Your task to perform on an android device: open app "Etsy: Buy & Sell Unique Items" (install if not already installed) Image 0: 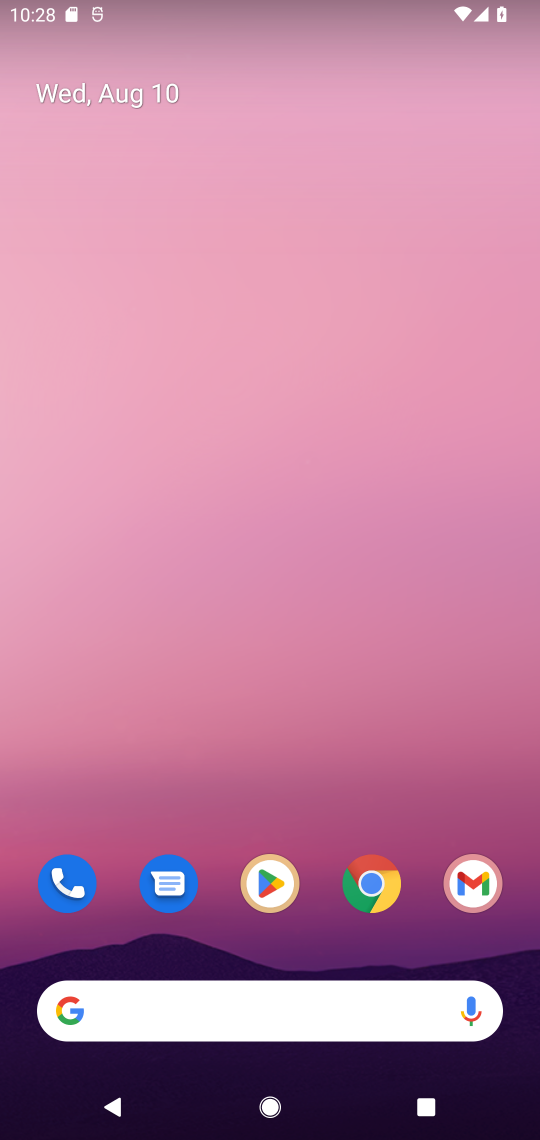
Step 0: drag from (293, 876) to (256, 107)
Your task to perform on an android device: open app "Etsy: Buy & Sell Unique Items" (install if not already installed) Image 1: 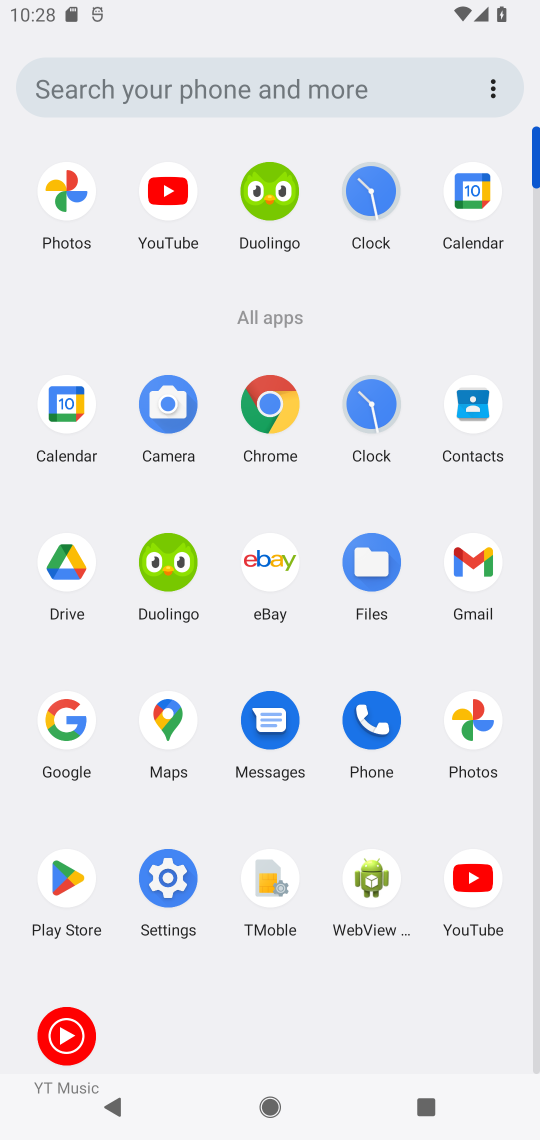
Step 1: click (53, 867)
Your task to perform on an android device: open app "Etsy: Buy & Sell Unique Items" (install if not already installed) Image 2: 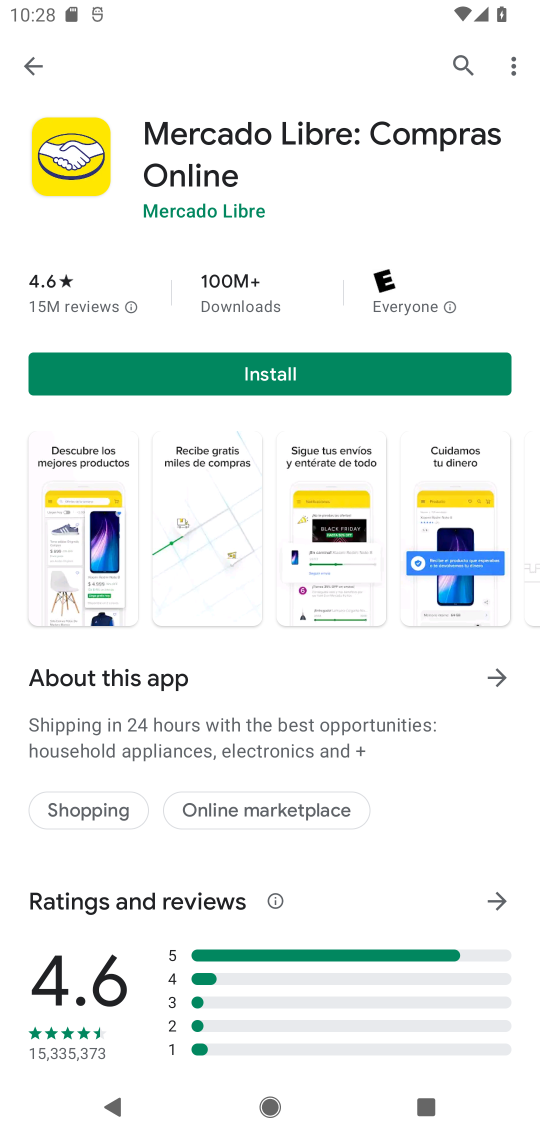
Step 2: click (458, 52)
Your task to perform on an android device: open app "Etsy: Buy & Sell Unique Items" (install if not already installed) Image 3: 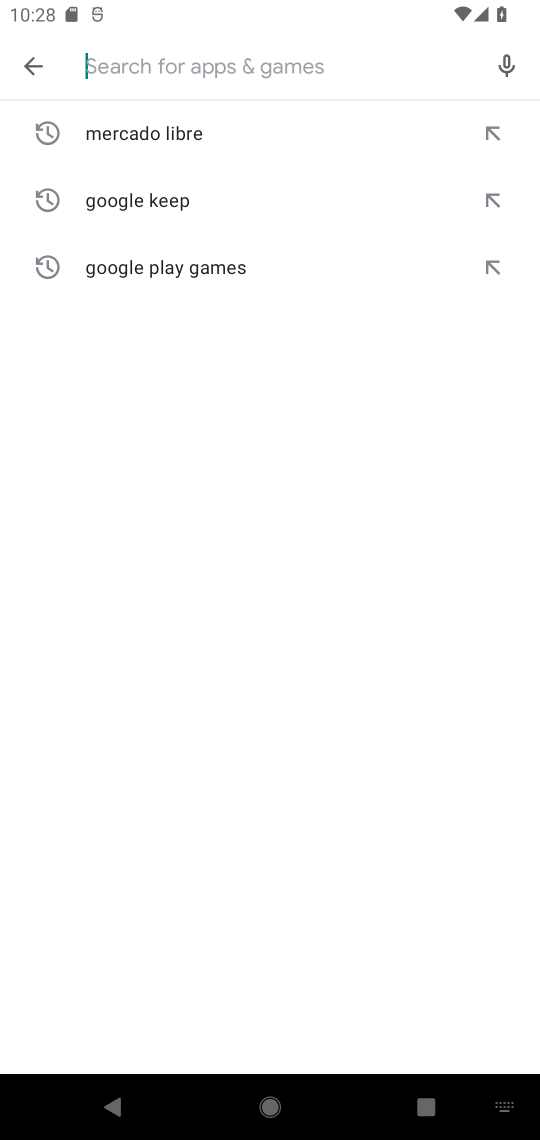
Step 3: type "Etsy: Buy & Sell Unique Items"
Your task to perform on an android device: open app "Etsy: Buy & Sell Unique Items" (install if not already installed) Image 4: 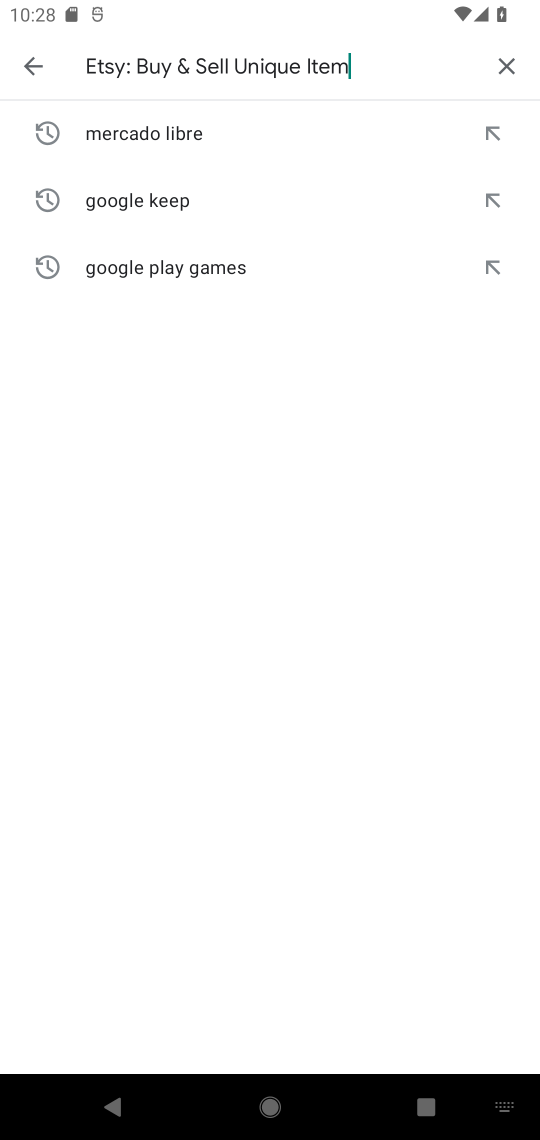
Step 4: type ""
Your task to perform on an android device: open app "Etsy: Buy & Sell Unique Items" (install if not already installed) Image 5: 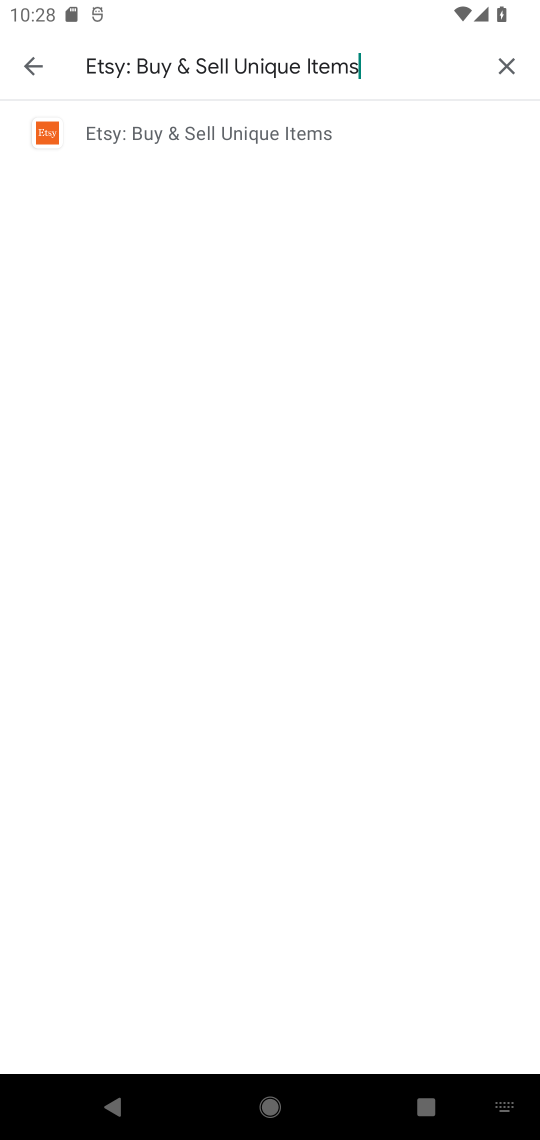
Step 5: click (191, 128)
Your task to perform on an android device: open app "Etsy: Buy & Sell Unique Items" (install if not already installed) Image 6: 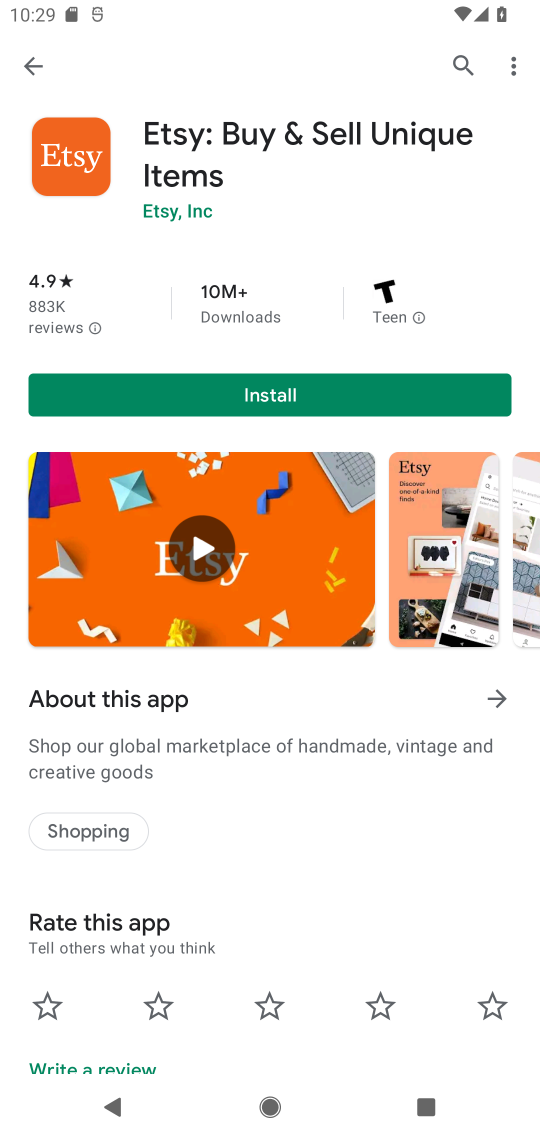
Step 6: click (230, 390)
Your task to perform on an android device: open app "Etsy: Buy & Sell Unique Items" (install if not already installed) Image 7: 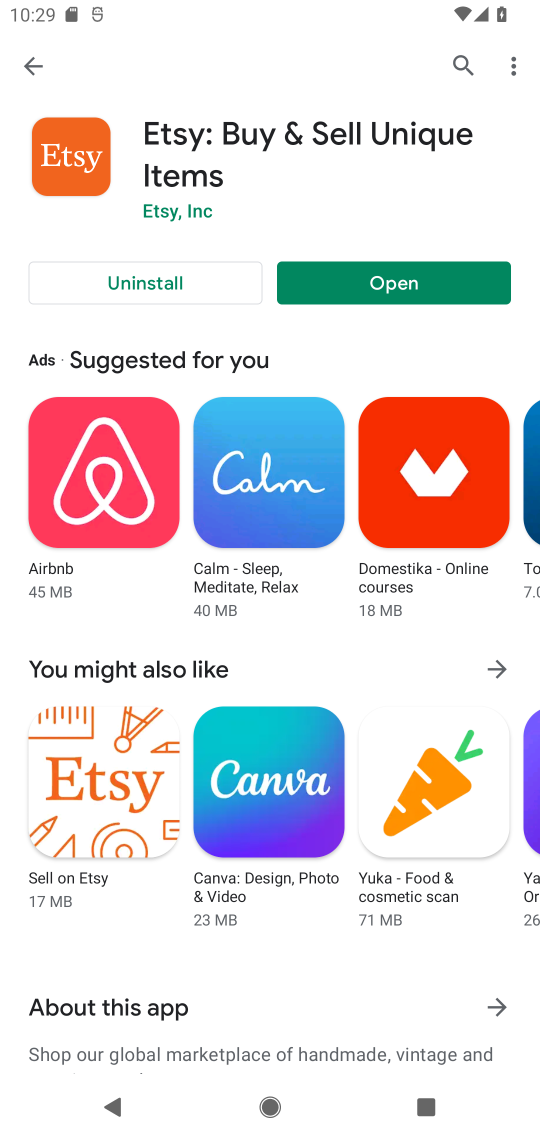
Step 7: click (411, 289)
Your task to perform on an android device: open app "Etsy: Buy & Sell Unique Items" (install if not already installed) Image 8: 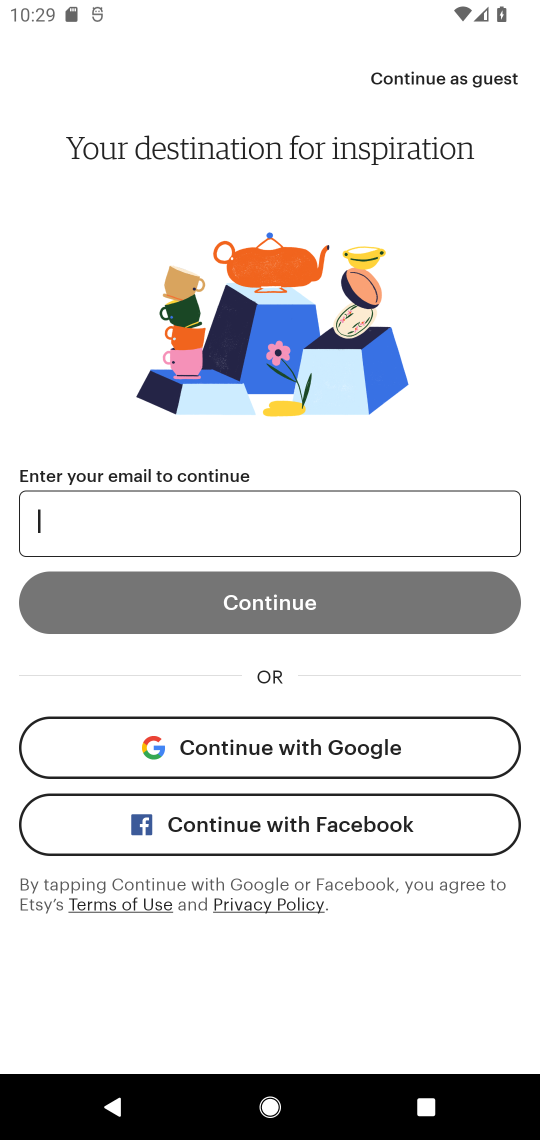
Step 8: task complete